Your task to perform on an android device: toggle show notifications on the lock screen Image 0: 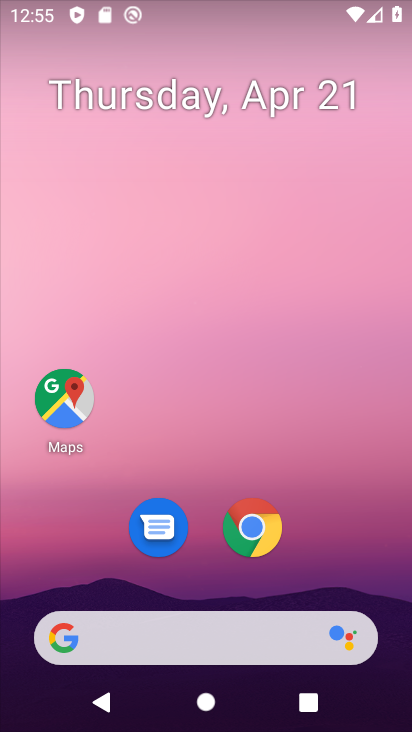
Step 0: drag from (332, 551) to (328, 111)
Your task to perform on an android device: toggle show notifications on the lock screen Image 1: 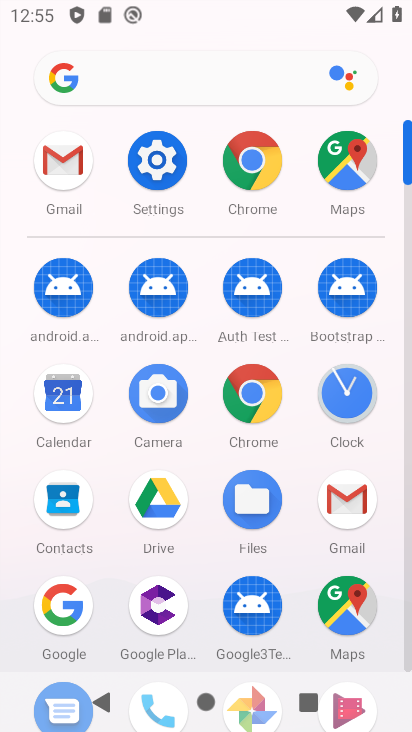
Step 1: click (139, 176)
Your task to perform on an android device: toggle show notifications on the lock screen Image 2: 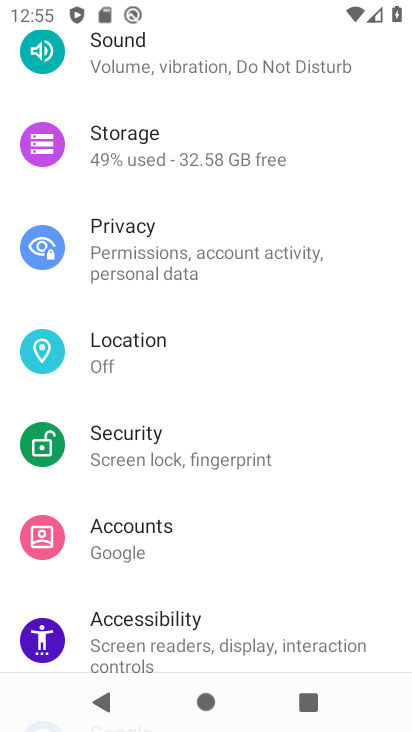
Step 2: drag from (341, 551) to (342, 326)
Your task to perform on an android device: toggle show notifications on the lock screen Image 3: 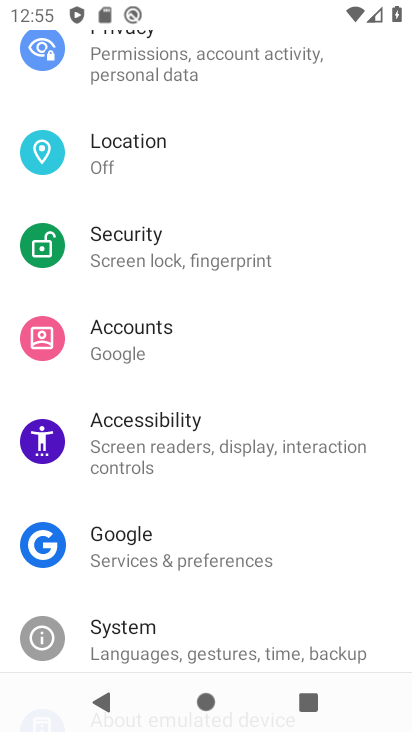
Step 3: drag from (319, 598) to (334, 380)
Your task to perform on an android device: toggle show notifications on the lock screen Image 4: 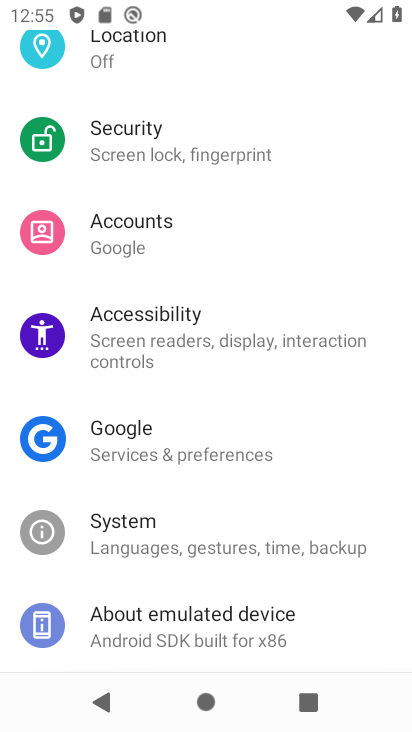
Step 4: drag from (355, 397) to (365, 594)
Your task to perform on an android device: toggle show notifications on the lock screen Image 5: 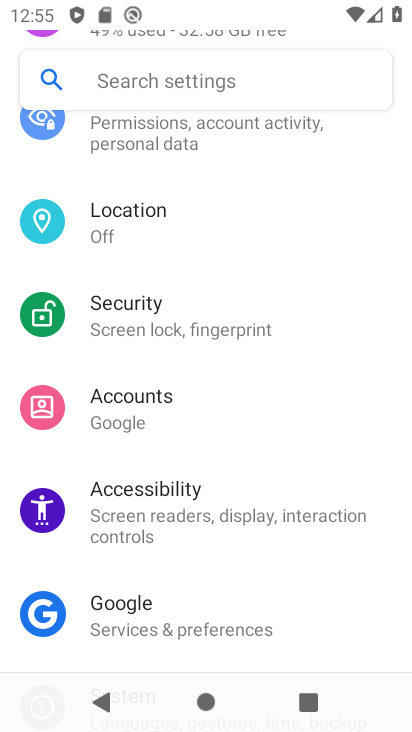
Step 5: drag from (353, 374) to (353, 569)
Your task to perform on an android device: toggle show notifications on the lock screen Image 6: 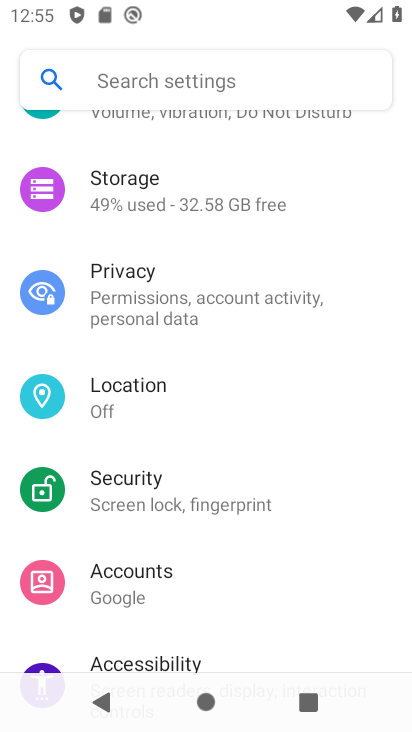
Step 6: drag from (334, 367) to (338, 502)
Your task to perform on an android device: toggle show notifications on the lock screen Image 7: 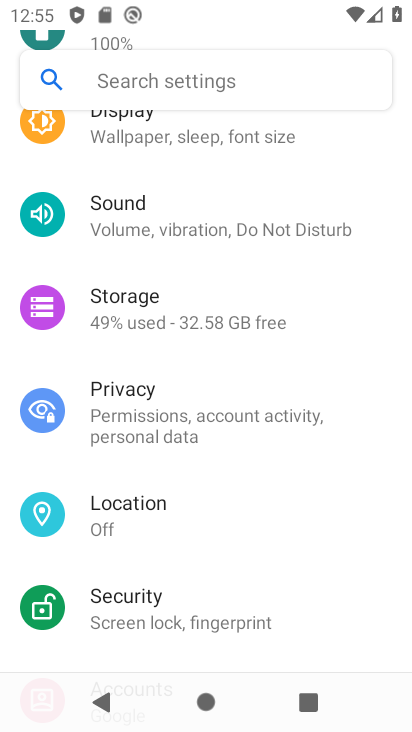
Step 7: drag from (333, 293) to (321, 447)
Your task to perform on an android device: toggle show notifications on the lock screen Image 8: 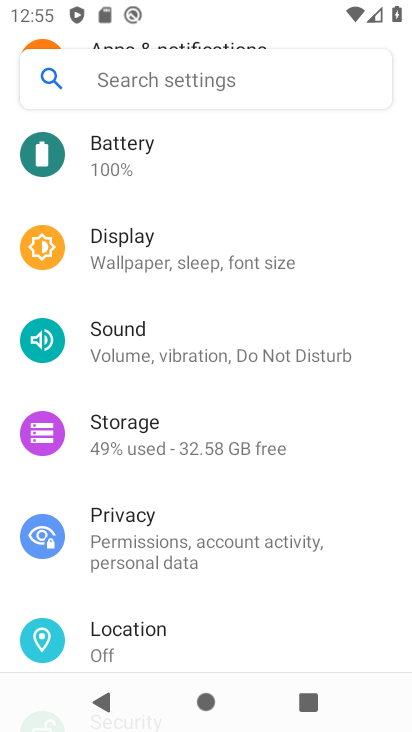
Step 8: drag from (362, 270) to (367, 451)
Your task to perform on an android device: toggle show notifications on the lock screen Image 9: 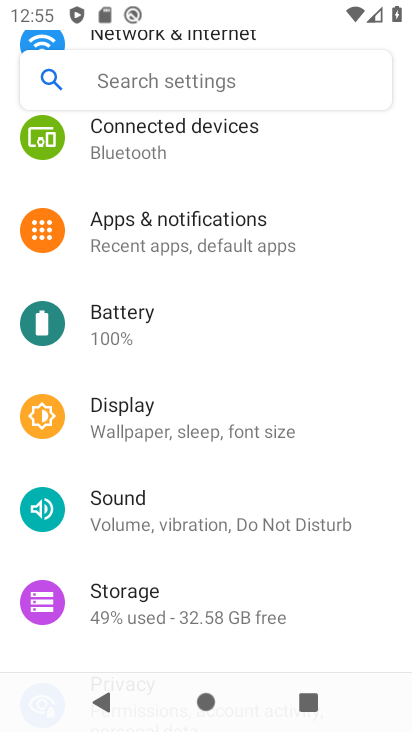
Step 9: drag from (351, 210) to (344, 398)
Your task to perform on an android device: toggle show notifications on the lock screen Image 10: 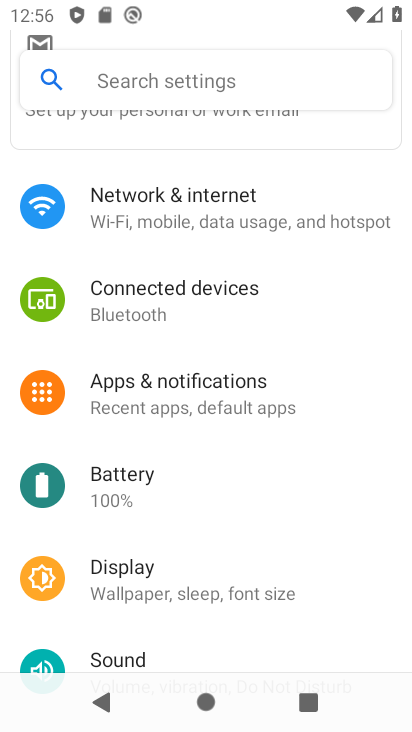
Step 10: click (247, 385)
Your task to perform on an android device: toggle show notifications on the lock screen Image 11: 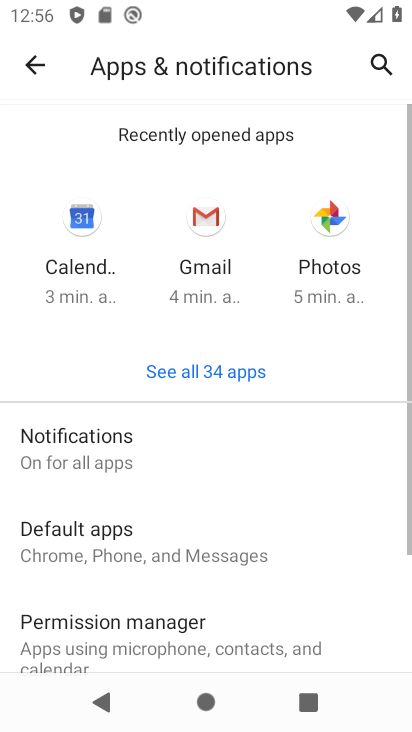
Step 11: drag from (296, 500) to (297, 355)
Your task to perform on an android device: toggle show notifications on the lock screen Image 12: 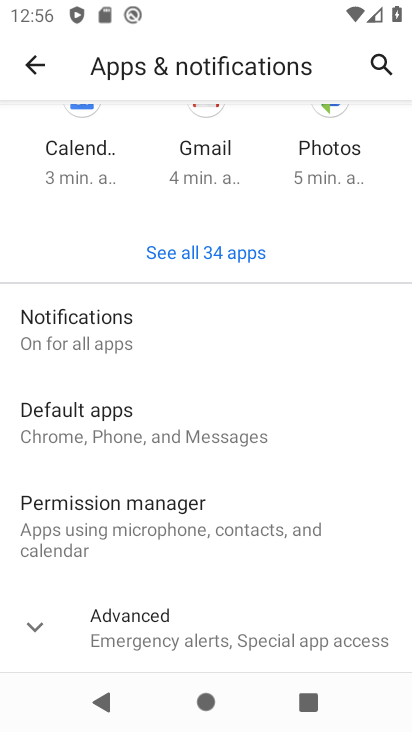
Step 12: click (106, 307)
Your task to perform on an android device: toggle show notifications on the lock screen Image 13: 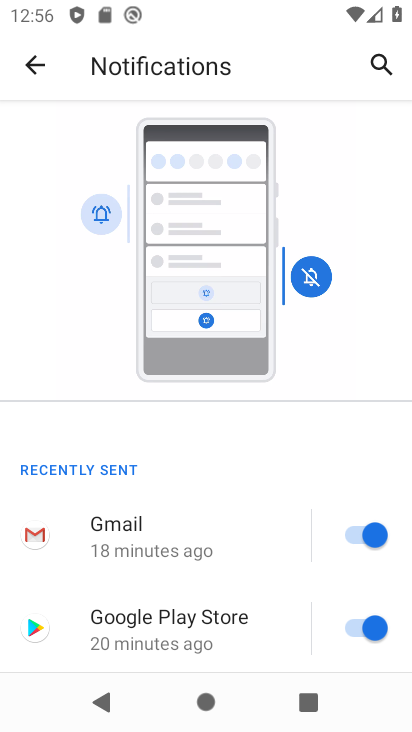
Step 13: drag from (253, 549) to (233, 393)
Your task to perform on an android device: toggle show notifications on the lock screen Image 14: 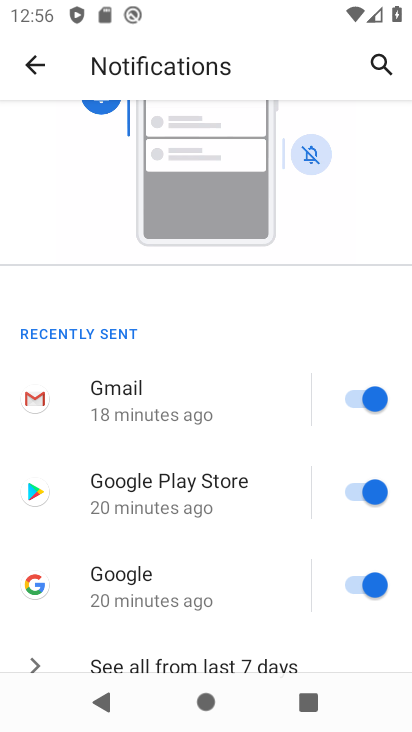
Step 14: drag from (263, 565) to (275, 388)
Your task to perform on an android device: toggle show notifications on the lock screen Image 15: 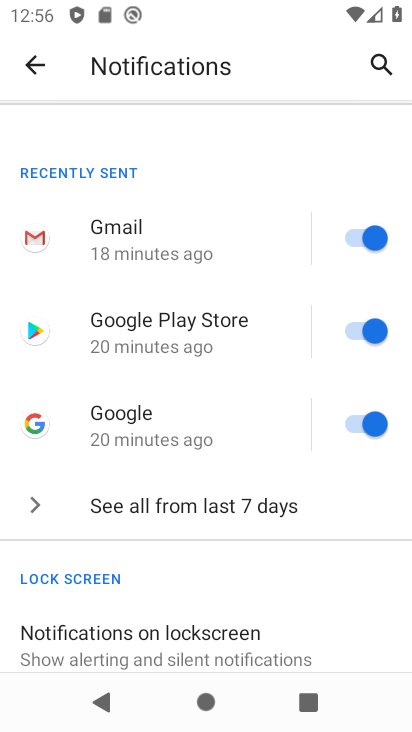
Step 15: drag from (278, 589) to (286, 398)
Your task to perform on an android device: toggle show notifications on the lock screen Image 16: 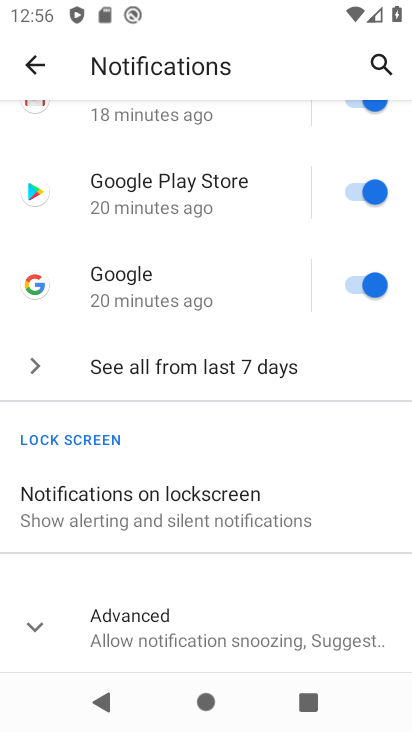
Step 16: drag from (289, 560) to (298, 396)
Your task to perform on an android device: toggle show notifications on the lock screen Image 17: 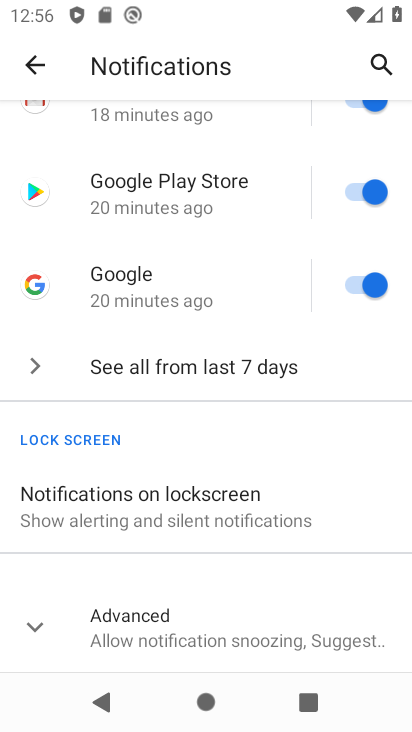
Step 17: click (199, 507)
Your task to perform on an android device: toggle show notifications on the lock screen Image 18: 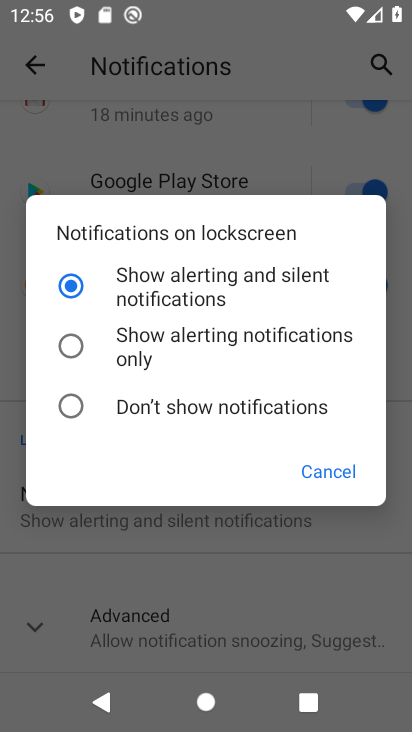
Step 18: click (61, 317)
Your task to perform on an android device: toggle show notifications on the lock screen Image 19: 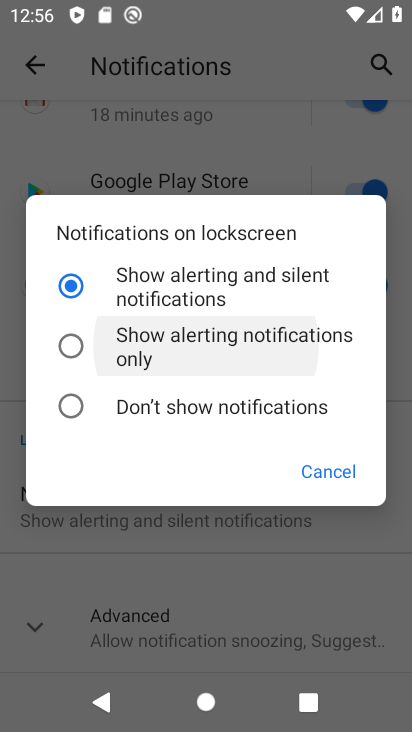
Step 19: click (78, 338)
Your task to perform on an android device: toggle show notifications on the lock screen Image 20: 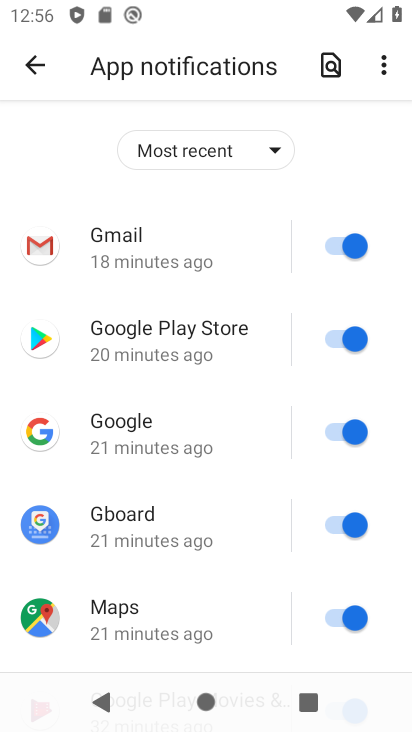
Step 20: task complete